Your task to perform on an android device: Is it going to rain tomorrow? Image 0: 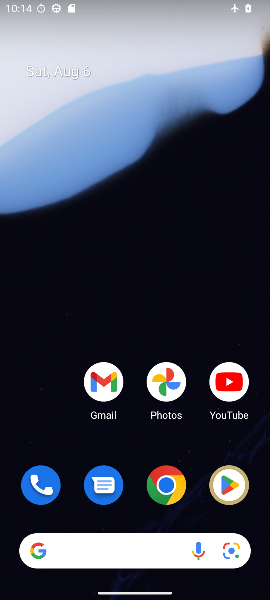
Step 0: drag from (195, 442) to (176, 33)
Your task to perform on an android device: Is it going to rain tomorrow? Image 1: 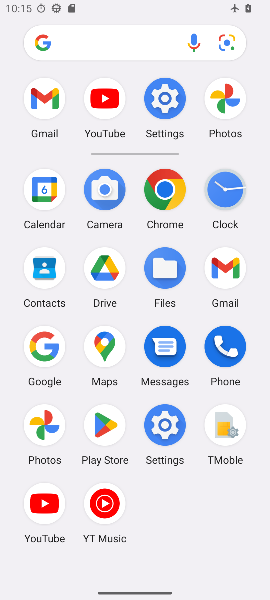
Step 1: click (166, 189)
Your task to perform on an android device: Is it going to rain tomorrow? Image 2: 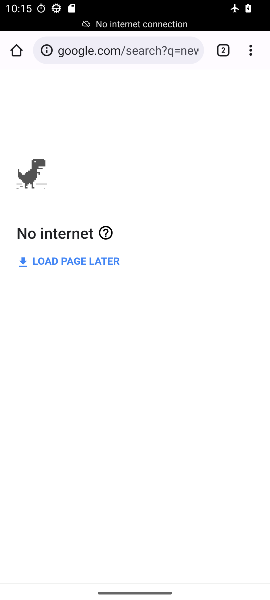
Step 2: click (122, 49)
Your task to perform on an android device: Is it going to rain tomorrow? Image 3: 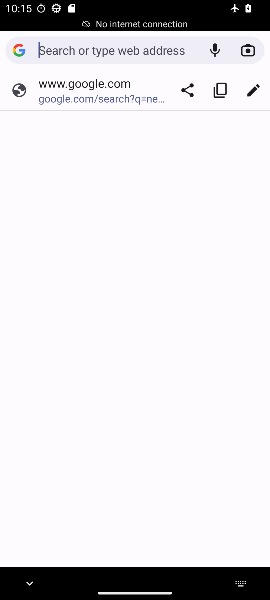
Step 3: type ""
Your task to perform on an android device: Is it going to rain tomorrow? Image 4: 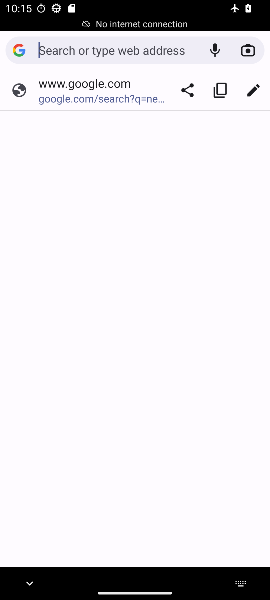
Step 4: type "weather"
Your task to perform on an android device: Is it going to rain tomorrow? Image 5: 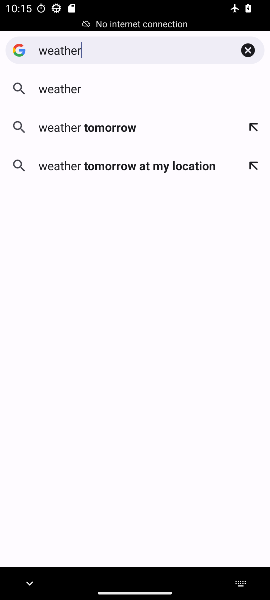
Step 5: click (64, 97)
Your task to perform on an android device: Is it going to rain tomorrow? Image 6: 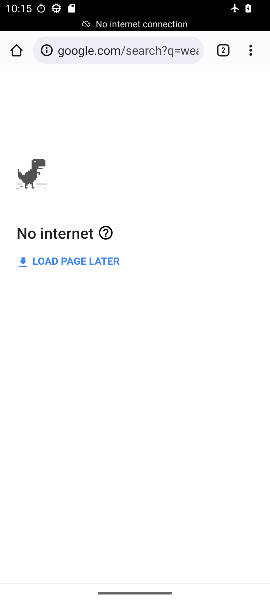
Step 6: task complete